Your task to perform on an android device: toggle airplane mode Image 0: 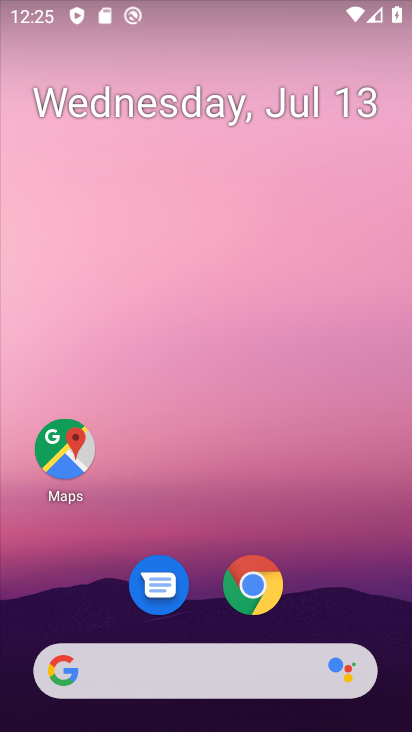
Step 0: drag from (325, 608) to (358, 71)
Your task to perform on an android device: toggle airplane mode Image 1: 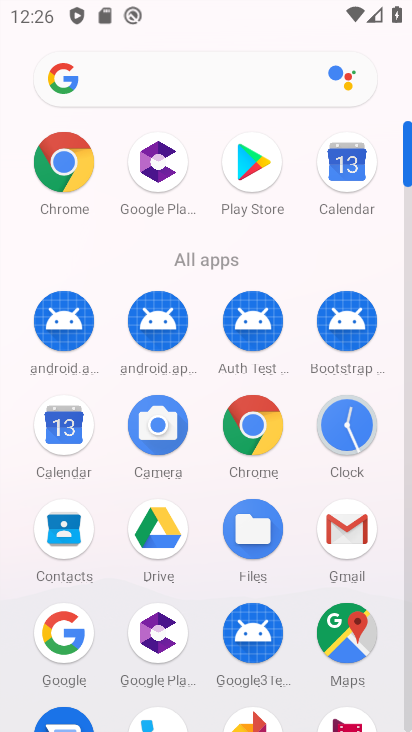
Step 1: drag from (205, 521) to (228, 178)
Your task to perform on an android device: toggle airplane mode Image 2: 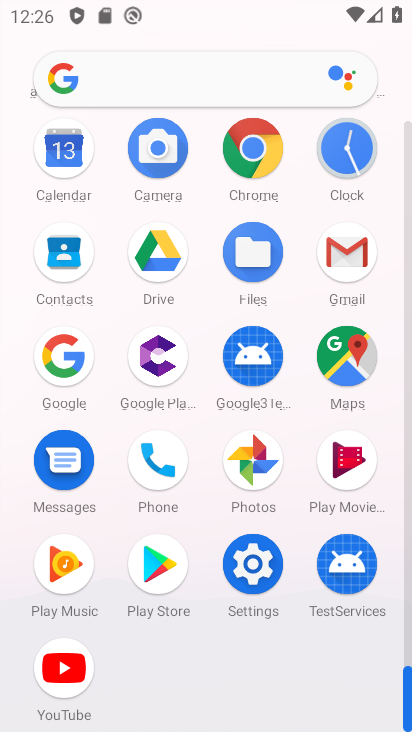
Step 2: click (247, 555)
Your task to perform on an android device: toggle airplane mode Image 3: 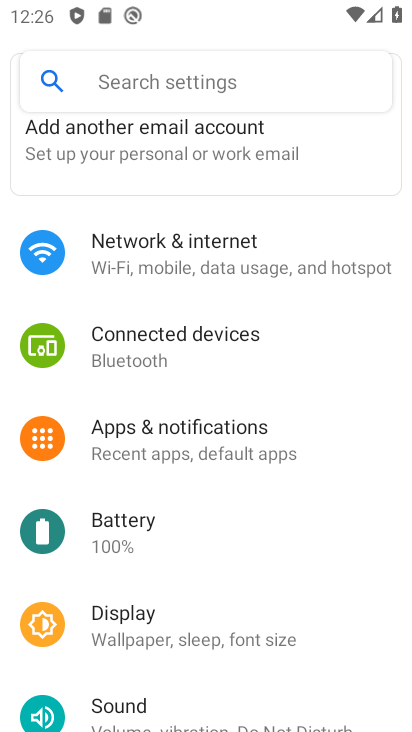
Step 3: click (249, 262)
Your task to perform on an android device: toggle airplane mode Image 4: 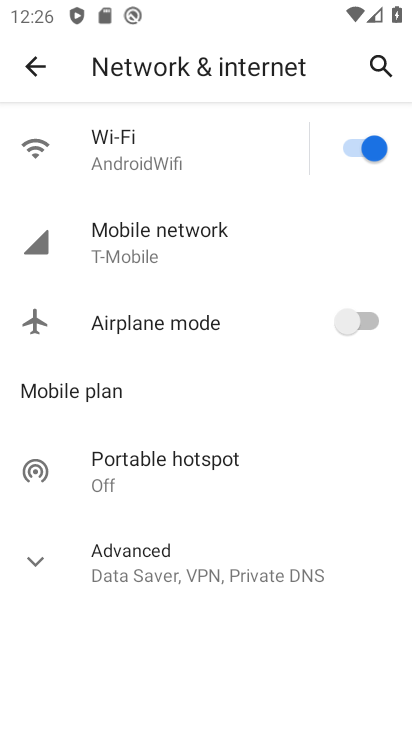
Step 4: click (359, 316)
Your task to perform on an android device: toggle airplane mode Image 5: 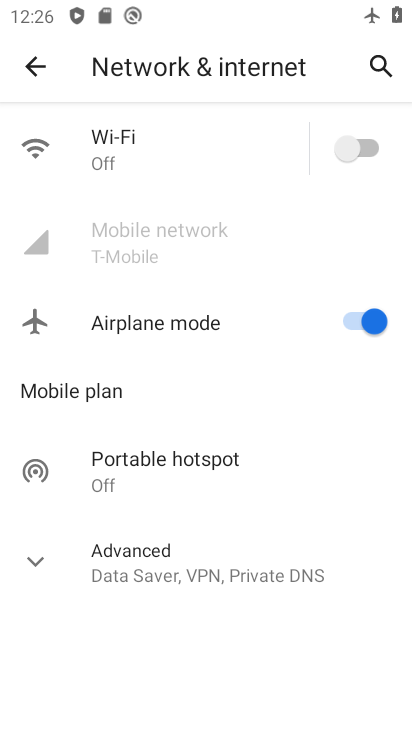
Step 5: task complete